Your task to perform on an android device: Open privacy settings Image 0: 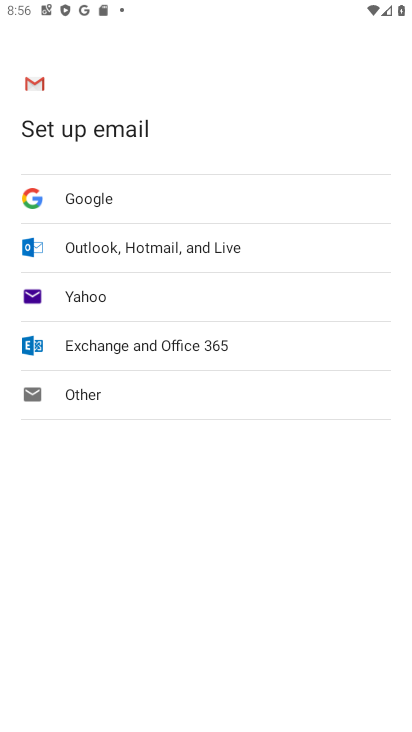
Step 0: press home button
Your task to perform on an android device: Open privacy settings Image 1: 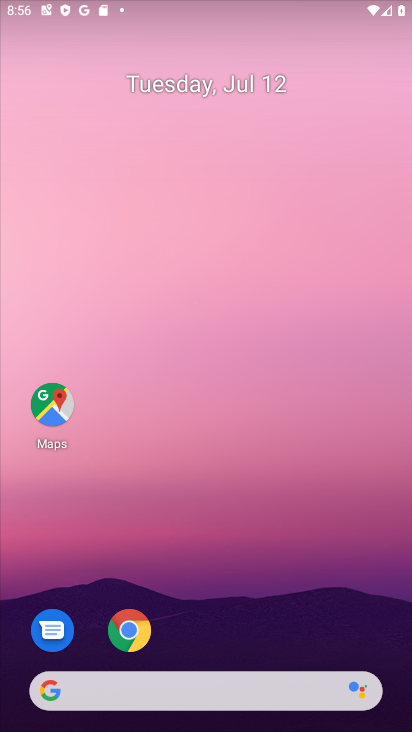
Step 1: click (129, 629)
Your task to perform on an android device: Open privacy settings Image 2: 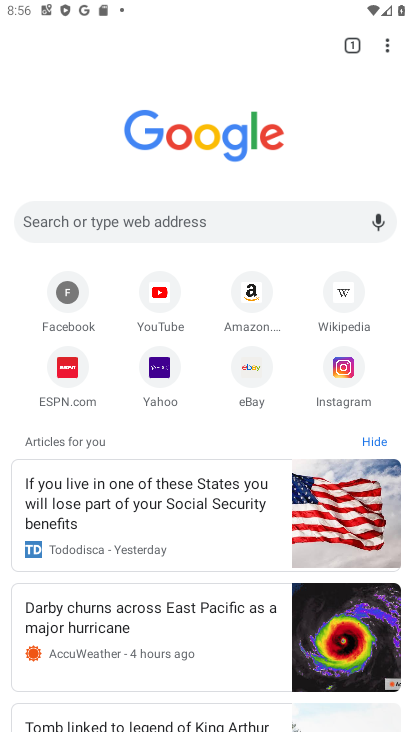
Step 2: click (380, 43)
Your task to perform on an android device: Open privacy settings Image 3: 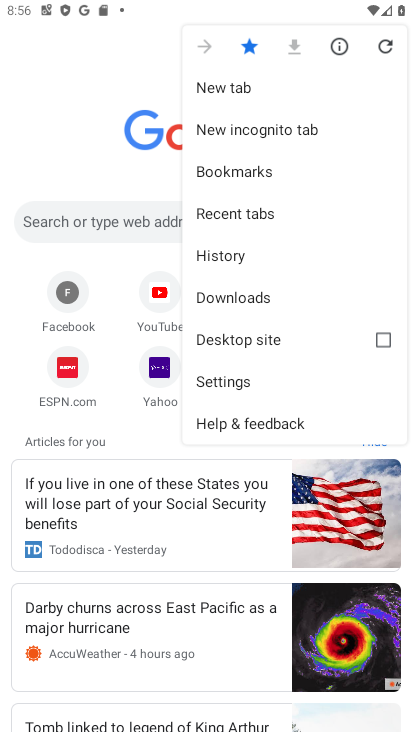
Step 3: click (236, 380)
Your task to perform on an android device: Open privacy settings Image 4: 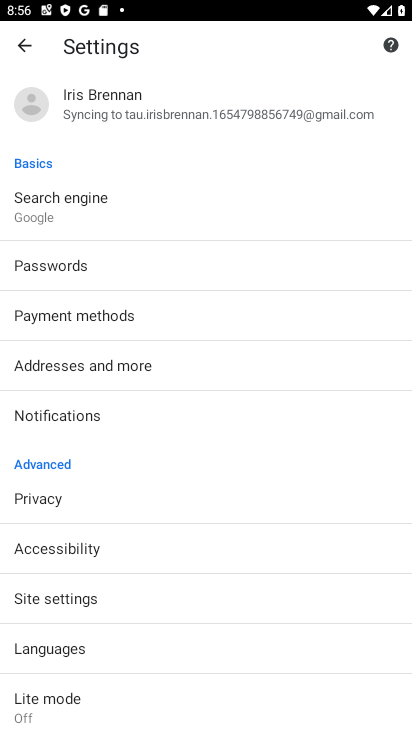
Step 4: click (76, 488)
Your task to perform on an android device: Open privacy settings Image 5: 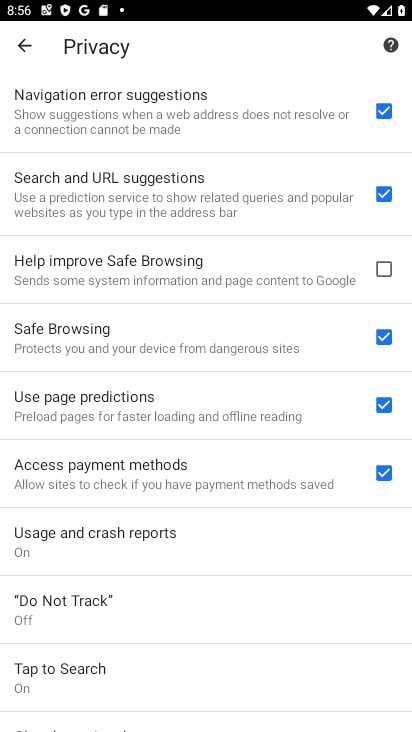
Step 5: task complete